Your task to perform on an android device: Open location settings Image 0: 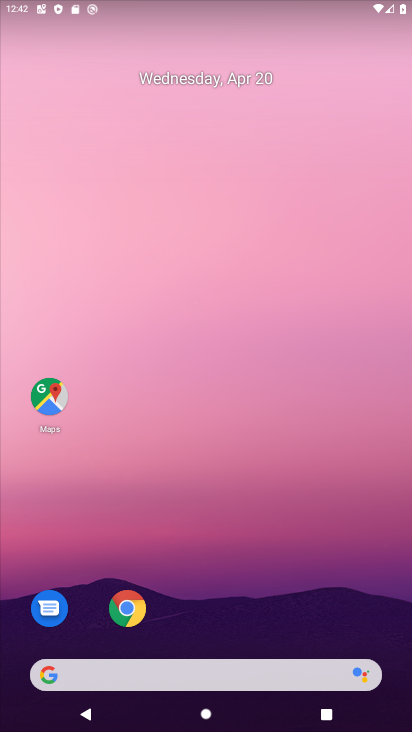
Step 0: drag from (292, 592) to (224, 296)
Your task to perform on an android device: Open location settings Image 1: 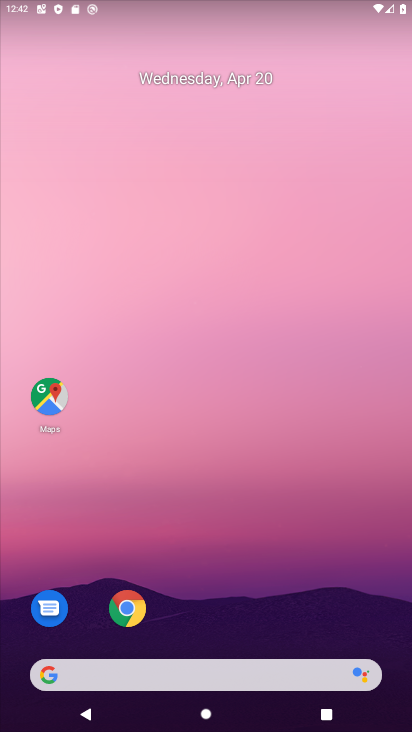
Step 1: drag from (265, 587) to (284, 239)
Your task to perform on an android device: Open location settings Image 2: 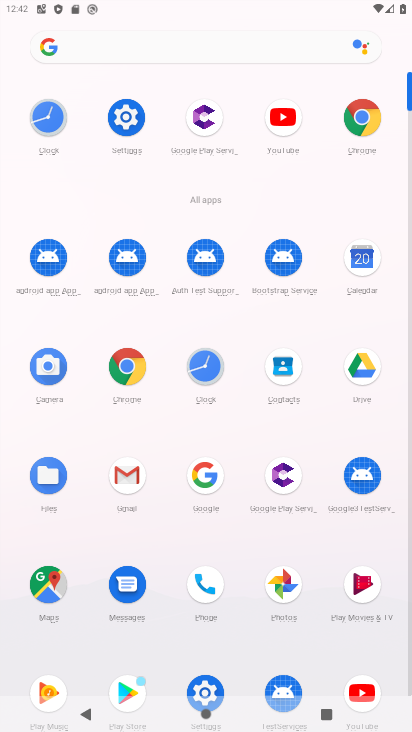
Step 2: click (110, 132)
Your task to perform on an android device: Open location settings Image 3: 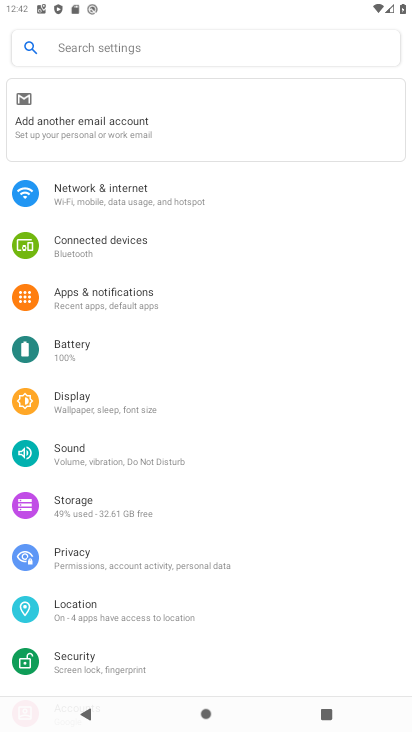
Step 3: click (111, 613)
Your task to perform on an android device: Open location settings Image 4: 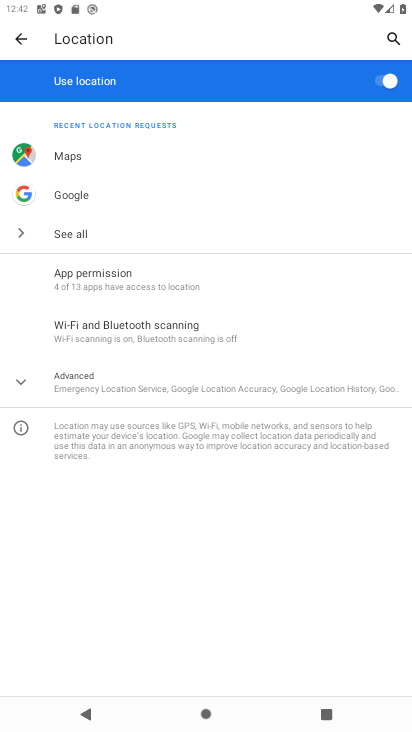
Step 4: task complete